Your task to perform on an android device: turn off improve location accuracy Image 0: 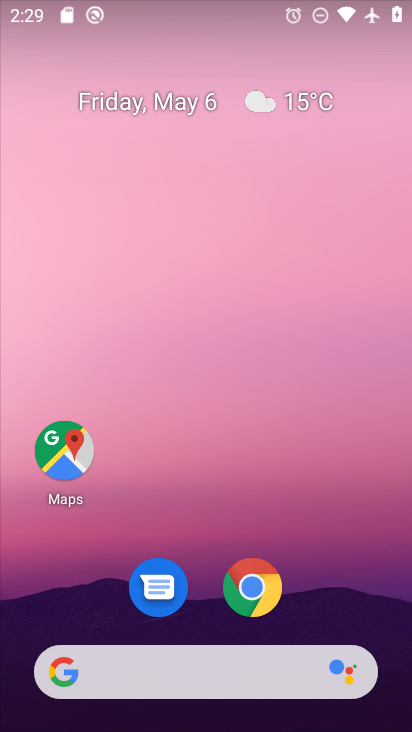
Step 0: drag from (291, 229) to (253, 30)
Your task to perform on an android device: turn off improve location accuracy Image 1: 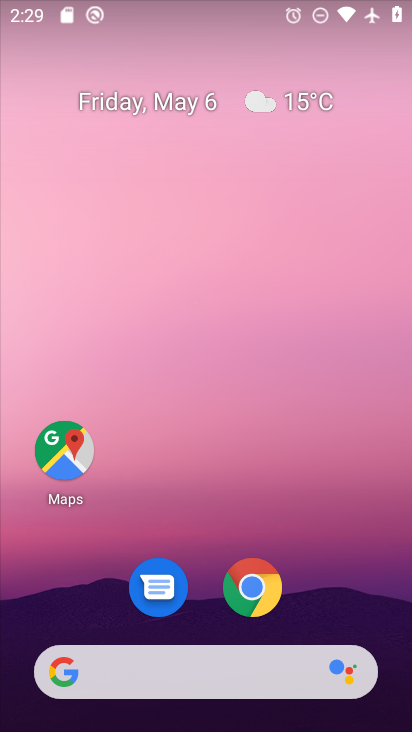
Step 1: drag from (321, 568) to (233, 22)
Your task to perform on an android device: turn off improve location accuracy Image 2: 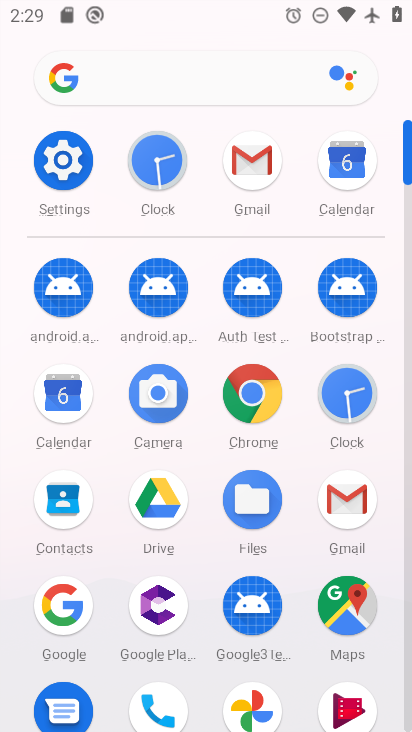
Step 2: click (55, 161)
Your task to perform on an android device: turn off improve location accuracy Image 3: 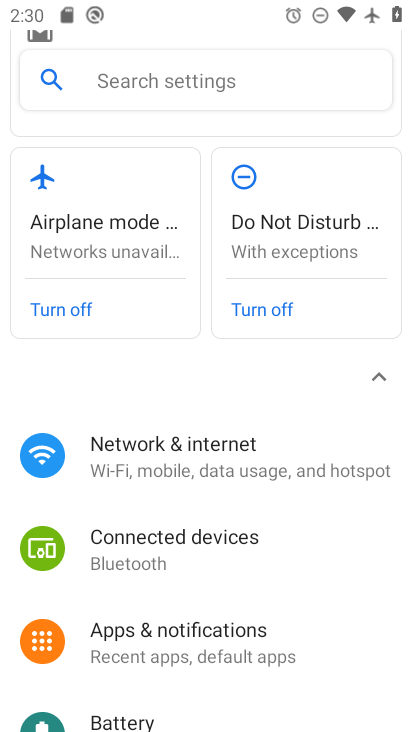
Step 3: drag from (240, 650) to (300, 113)
Your task to perform on an android device: turn off improve location accuracy Image 4: 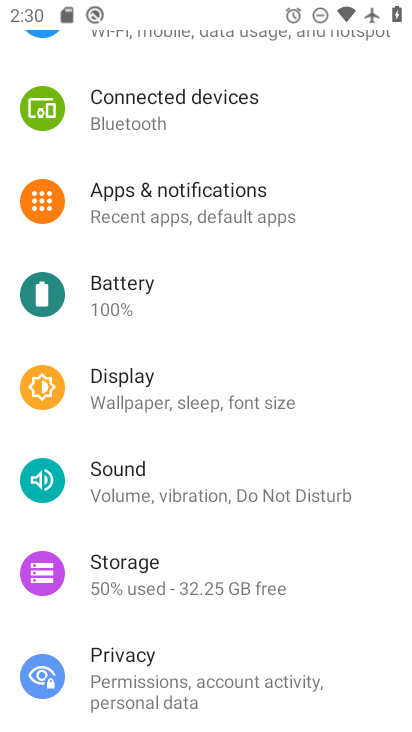
Step 4: drag from (226, 630) to (287, 199)
Your task to perform on an android device: turn off improve location accuracy Image 5: 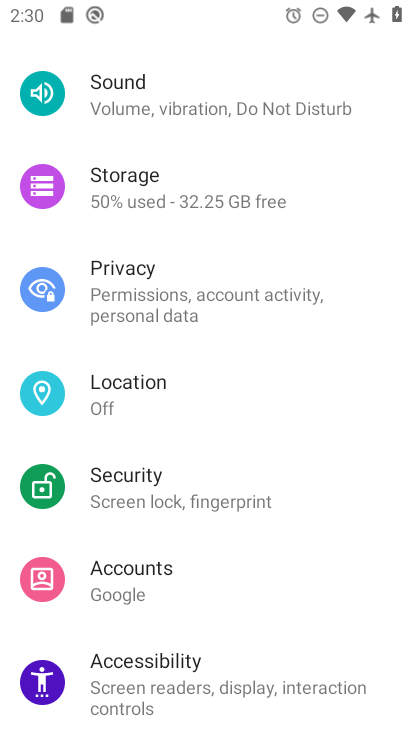
Step 5: drag from (290, 397) to (282, 174)
Your task to perform on an android device: turn off improve location accuracy Image 6: 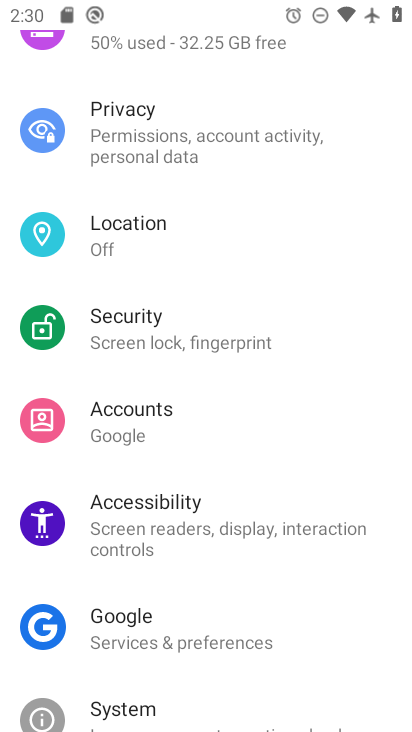
Step 6: click (116, 242)
Your task to perform on an android device: turn off improve location accuracy Image 7: 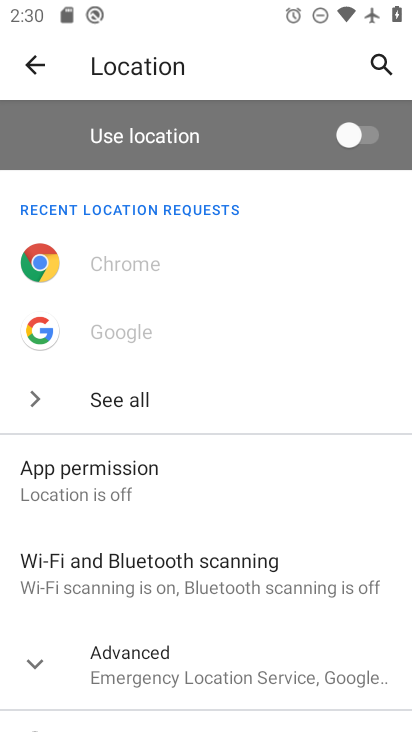
Step 7: click (199, 661)
Your task to perform on an android device: turn off improve location accuracy Image 8: 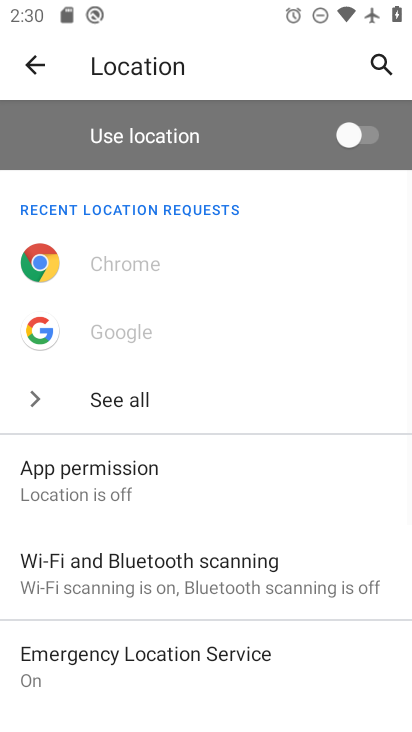
Step 8: drag from (268, 676) to (236, 213)
Your task to perform on an android device: turn off improve location accuracy Image 9: 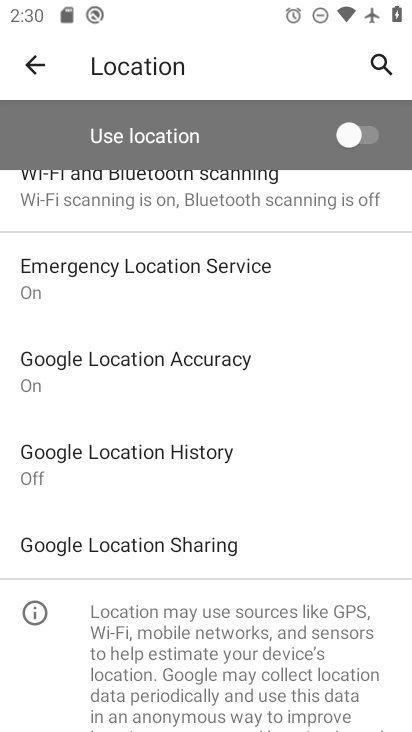
Step 9: click (200, 371)
Your task to perform on an android device: turn off improve location accuracy Image 10: 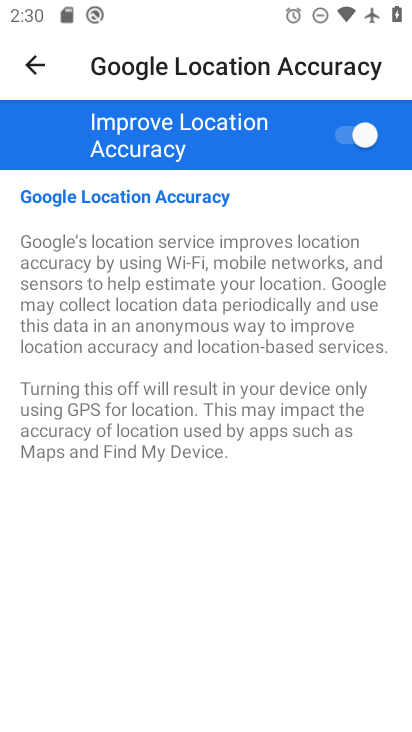
Step 10: click (355, 129)
Your task to perform on an android device: turn off improve location accuracy Image 11: 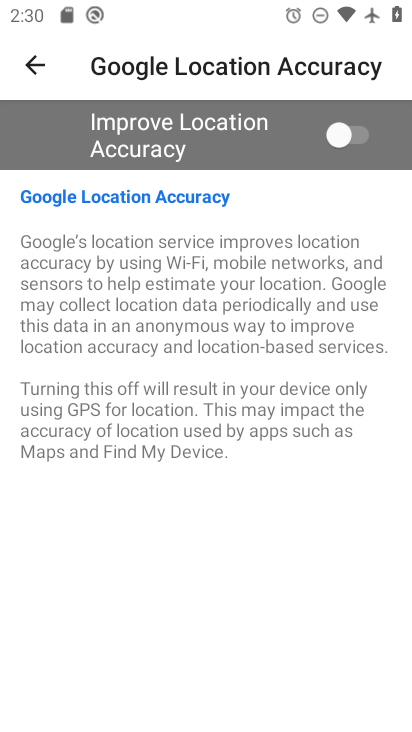
Step 11: task complete